Your task to perform on an android device: Open settings Image 0: 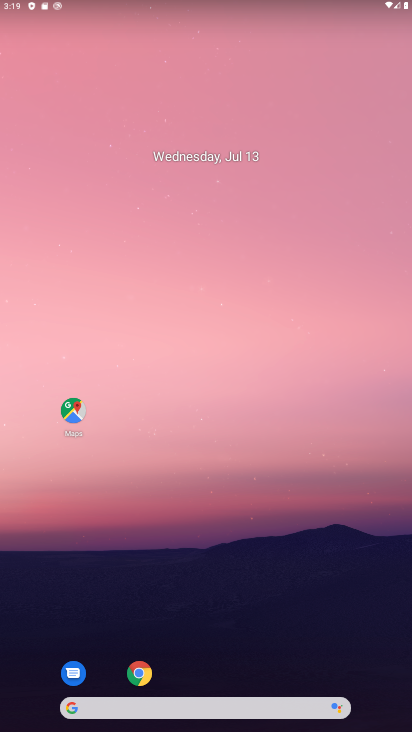
Step 0: drag from (194, 699) to (300, 9)
Your task to perform on an android device: Open settings Image 1: 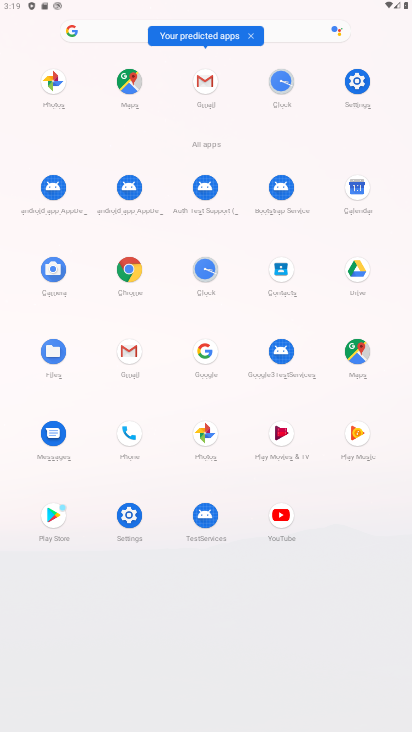
Step 1: click (356, 83)
Your task to perform on an android device: Open settings Image 2: 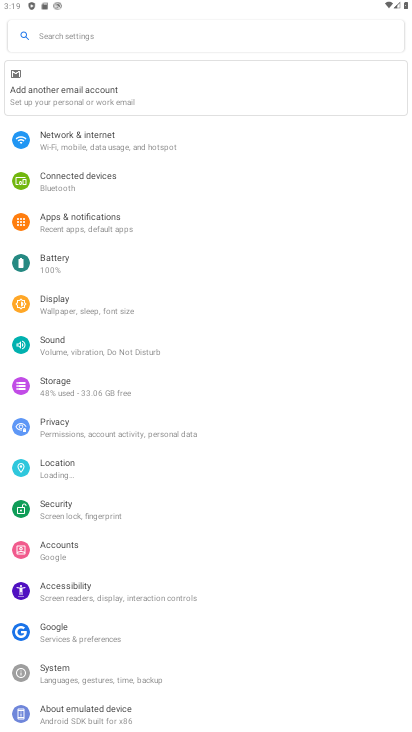
Step 2: task complete